Your task to perform on an android device: Search for vegetarian restaurants on Maps Image 0: 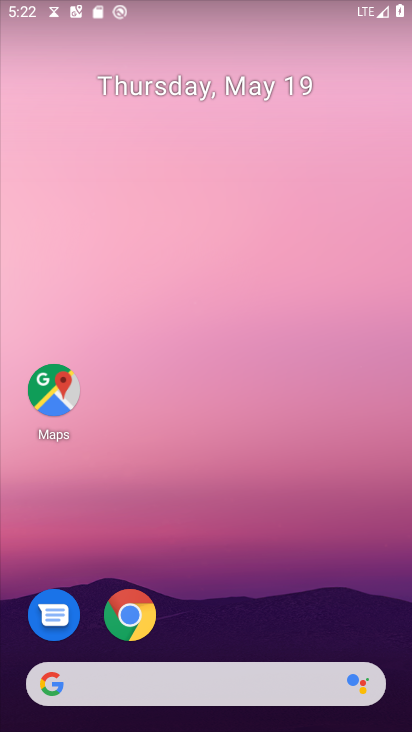
Step 0: drag from (243, 691) to (280, 59)
Your task to perform on an android device: Search for vegetarian restaurants on Maps Image 1: 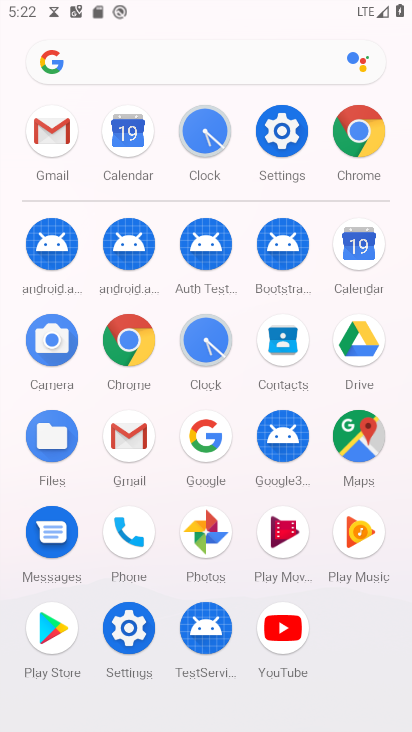
Step 1: click (359, 438)
Your task to perform on an android device: Search for vegetarian restaurants on Maps Image 2: 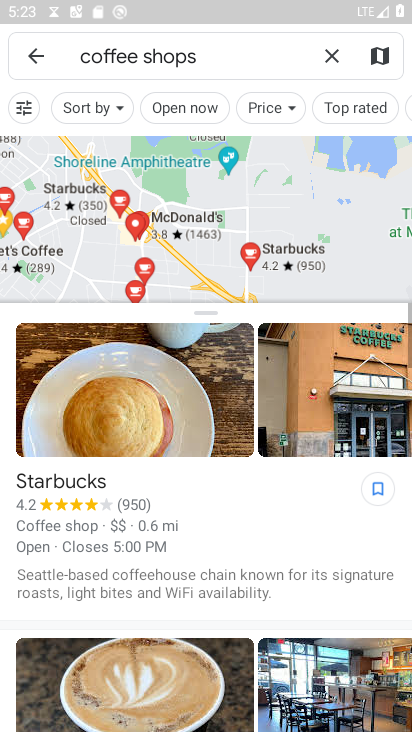
Step 2: press back button
Your task to perform on an android device: Search for vegetarian restaurants on Maps Image 3: 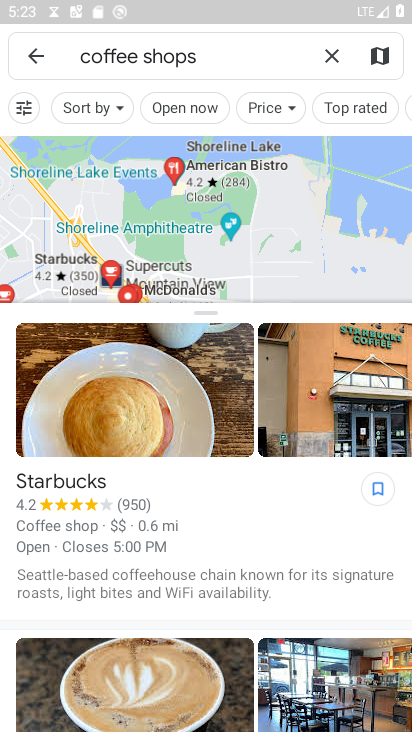
Step 3: press back button
Your task to perform on an android device: Search for vegetarian restaurants on Maps Image 4: 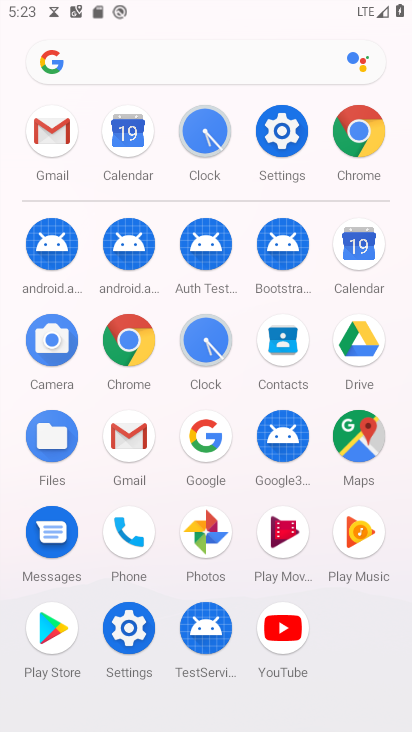
Step 4: click (356, 440)
Your task to perform on an android device: Search for vegetarian restaurants on Maps Image 5: 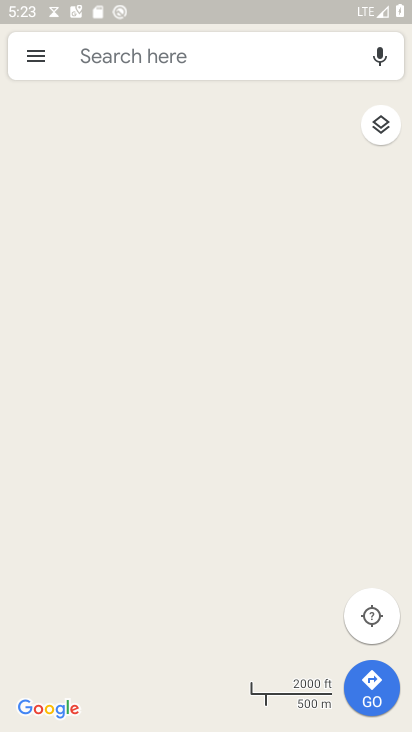
Step 5: click (192, 55)
Your task to perform on an android device: Search for vegetarian restaurants on Maps Image 6: 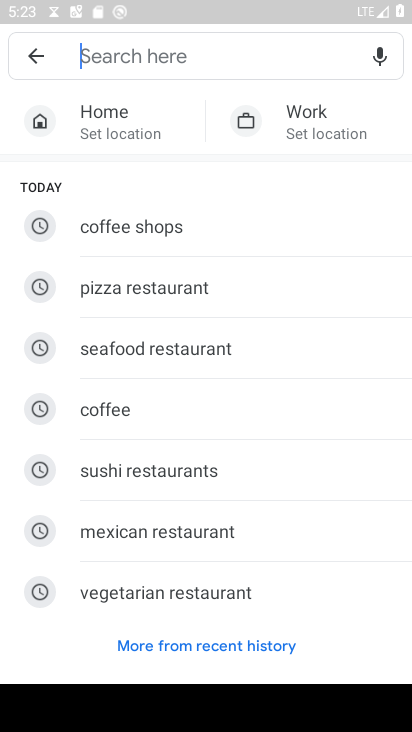
Step 6: click (185, 599)
Your task to perform on an android device: Search for vegetarian restaurants on Maps Image 7: 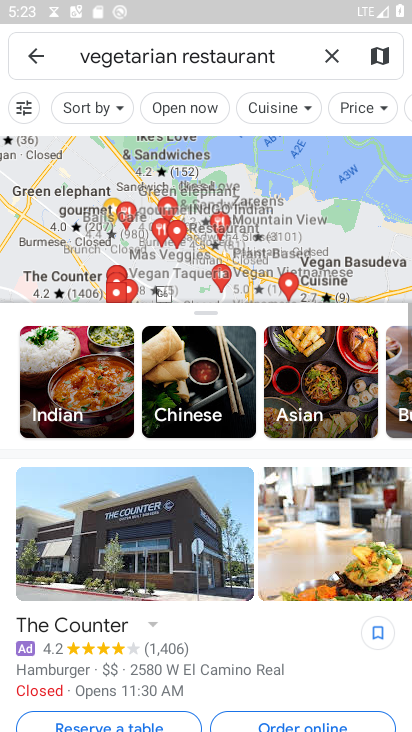
Step 7: task complete